Your task to perform on an android device: change keyboard looks Image 0: 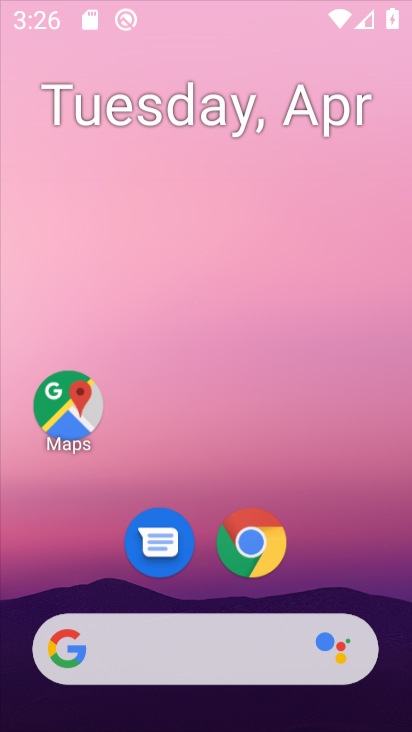
Step 0: click (271, 556)
Your task to perform on an android device: change keyboard looks Image 1: 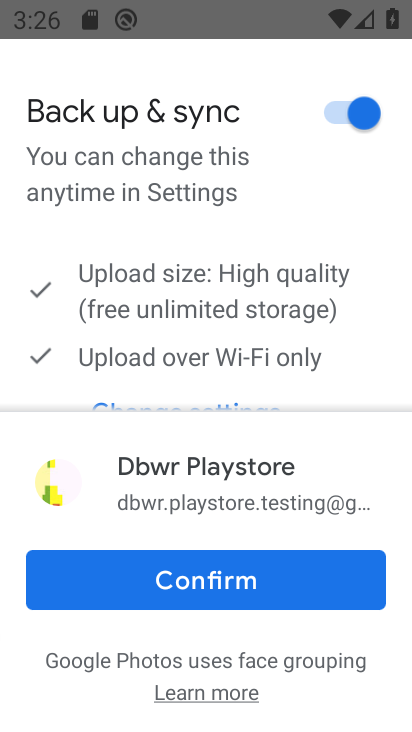
Step 1: press home button
Your task to perform on an android device: change keyboard looks Image 2: 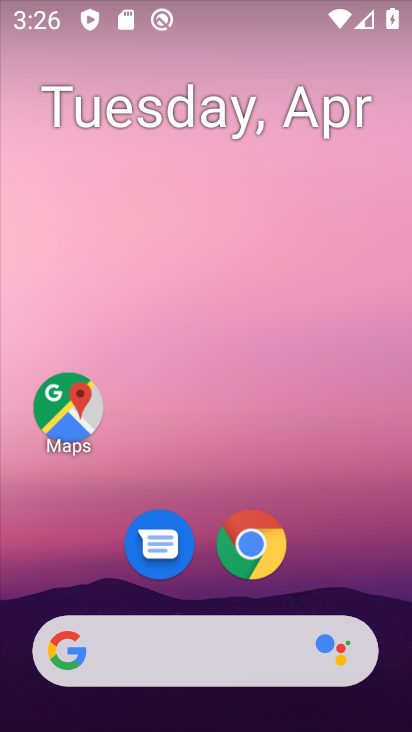
Step 2: drag from (328, 440) to (309, 160)
Your task to perform on an android device: change keyboard looks Image 3: 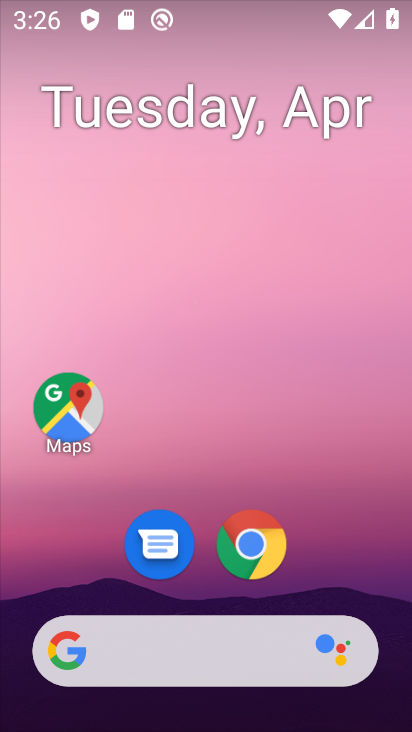
Step 3: drag from (322, 454) to (310, 165)
Your task to perform on an android device: change keyboard looks Image 4: 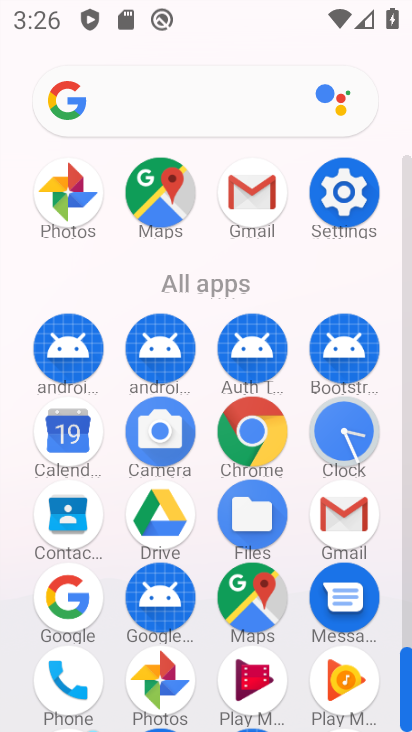
Step 4: click (351, 224)
Your task to perform on an android device: change keyboard looks Image 5: 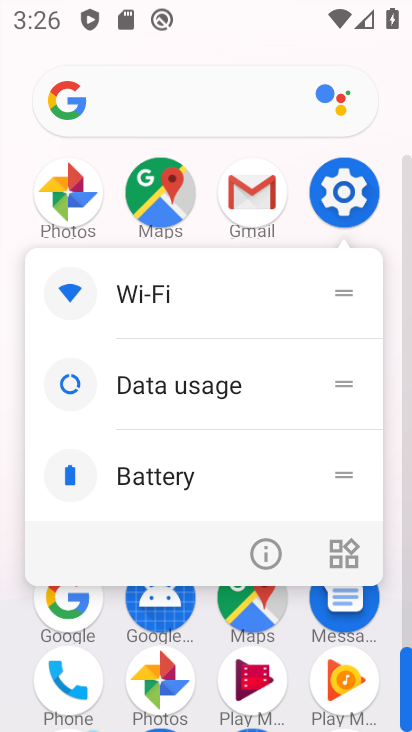
Step 5: click (351, 212)
Your task to perform on an android device: change keyboard looks Image 6: 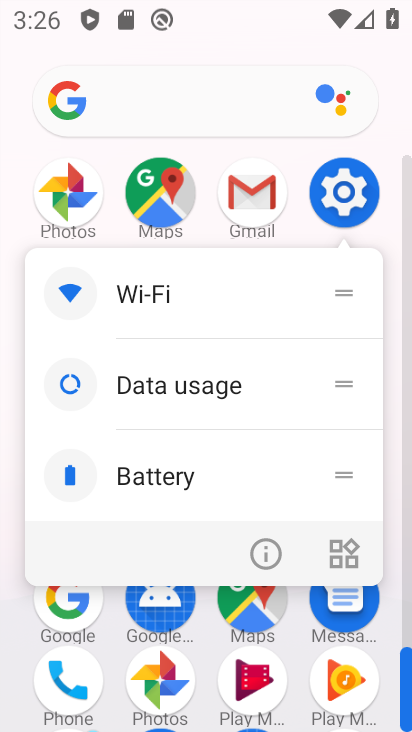
Step 6: click (351, 212)
Your task to perform on an android device: change keyboard looks Image 7: 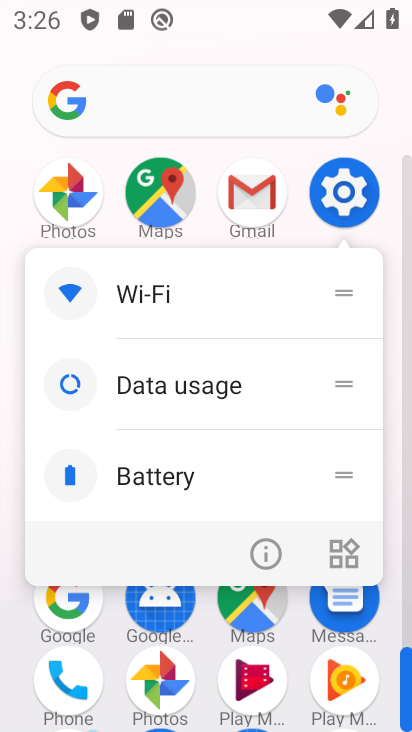
Step 7: click (351, 212)
Your task to perform on an android device: change keyboard looks Image 8: 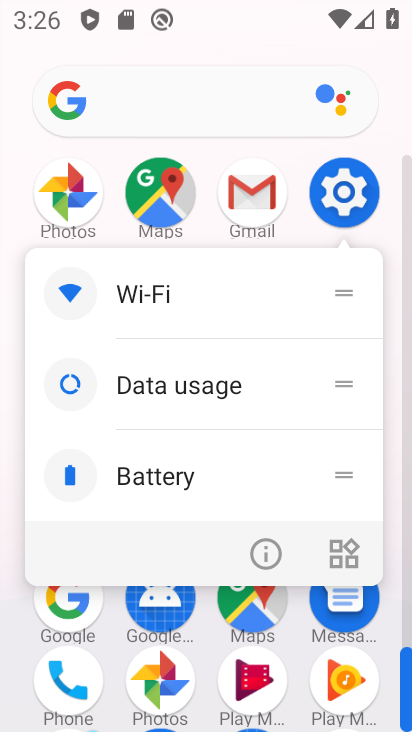
Step 8: click (351, 212)
Your task to perform on an android device: change keyboard looks Image 9: 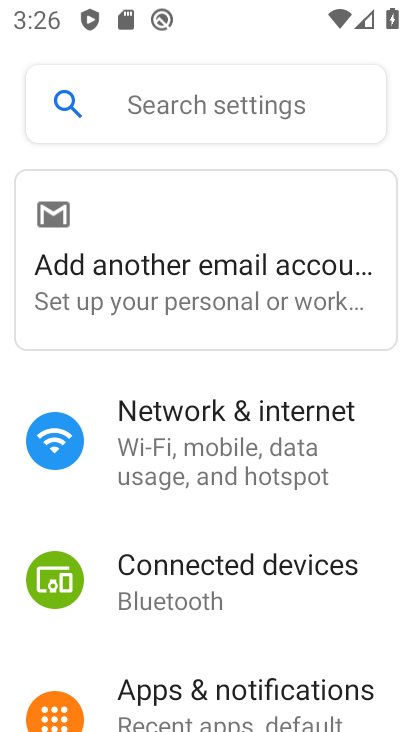
Step 9: drag from (290, 587) to (314, 208)
Your task to perform on an android device: change keyboard looks Image 10: 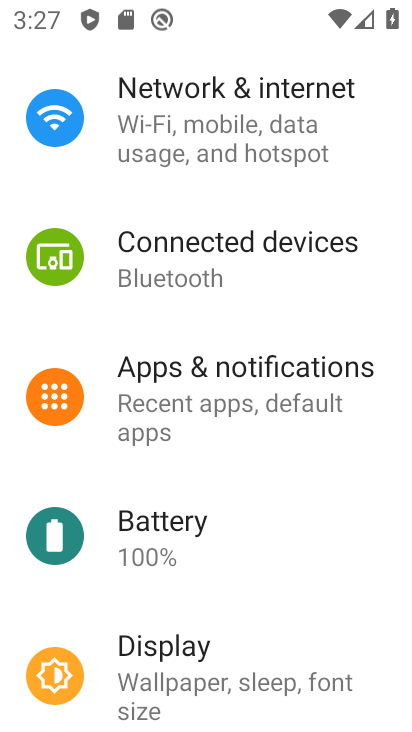
Step 10: drag from (313, 614) to (293, 168)
Your task to perform on an android device: change keyboard looks Image 11: 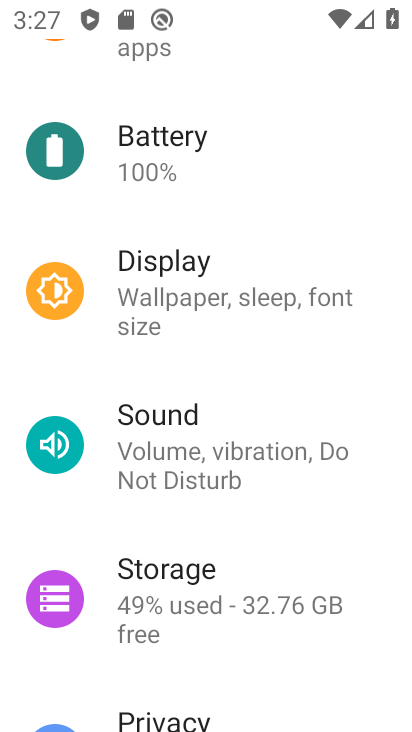
Step 11: drag from (281, 674) to (267, 186)
Your task to perform on an android device: change keyboard looks Image 12: 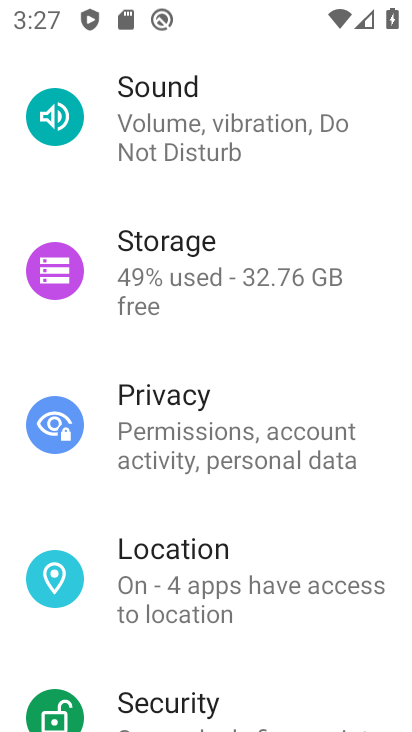
Step 12: drag from (238, 704) to (224, 221)
Your task to perform on an android device: change keyboard looks Image 13: 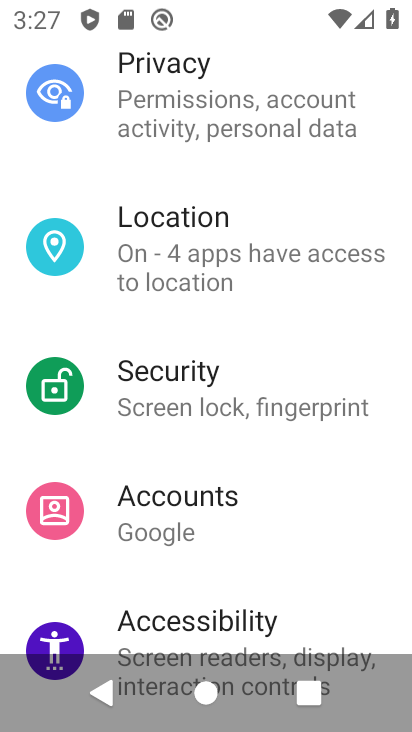
Step 13: drag from (281, 619) to (261, 201)
Your task to perform on an android device: change keyboard looks Image 14: 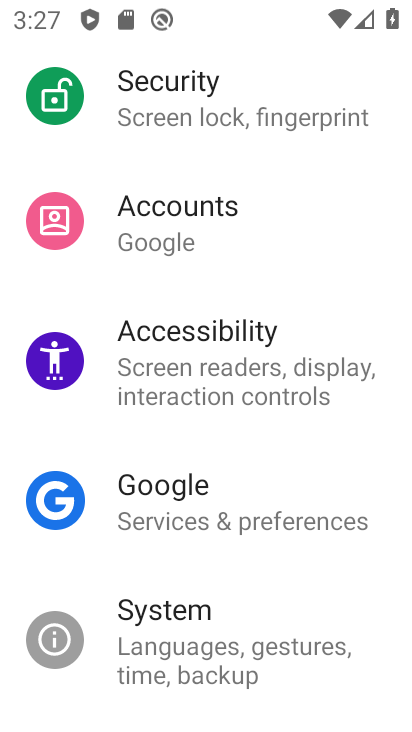
Step 14: click (215, 667)
Your task to perform on an android device: change keyboard looks Image 15: 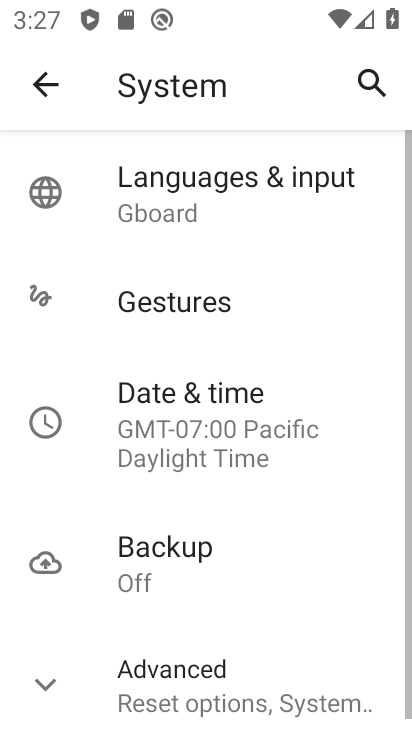
Step 15: click (197, 206)
Your task to perform on an android device: change keyboard looks Image 16: 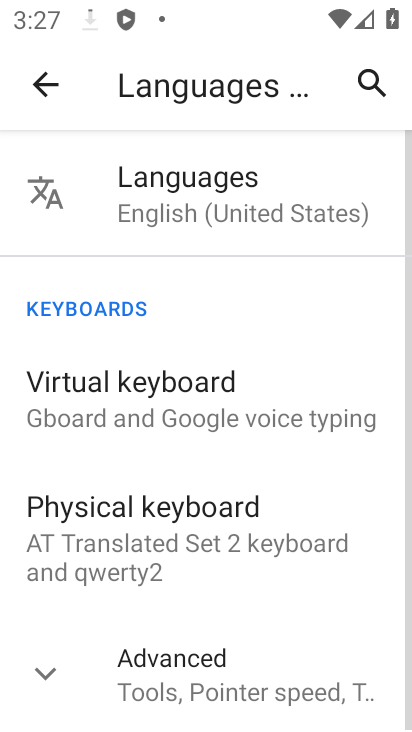
Step 16: click (190, 418)
Your task to perform on an android device: change keyboard looks Image 17: 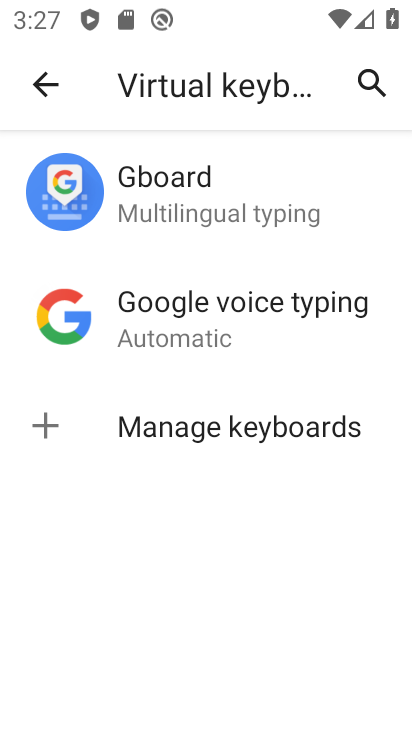
Step 17: click (212, 200)
Your task to perform on an android device: change keyboard looks Image 18: 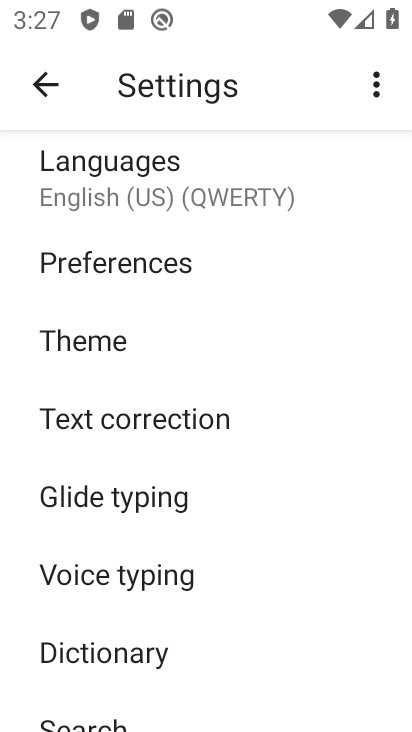
Step 18: click (108, 352)
Your task to perform on an android device: change keyboard looks Image 19: 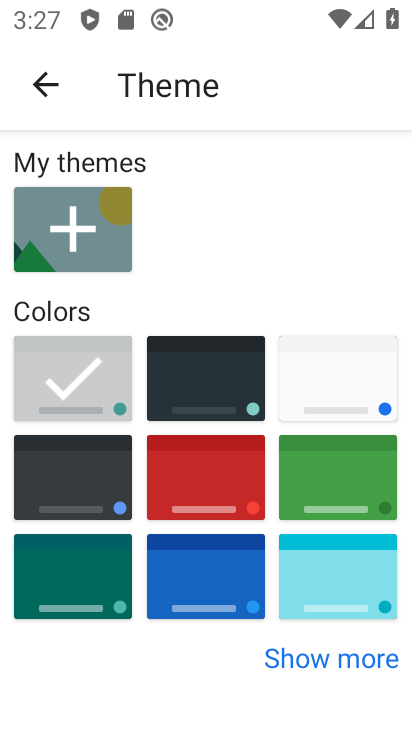
Step 19: click (217, 388)
Your task to perform on an android device: change keyboard looks Image 20: 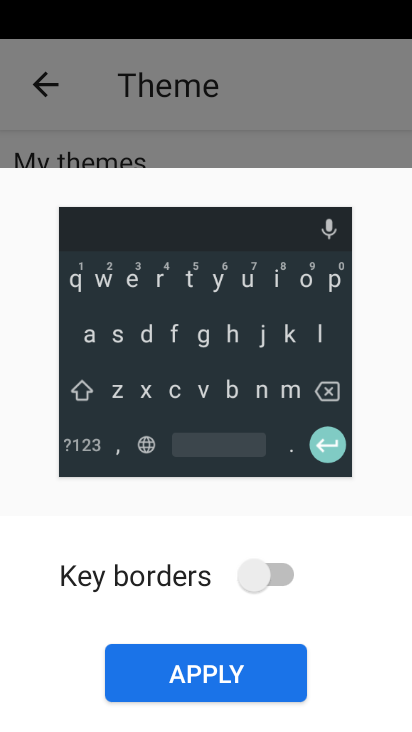
Step 20: click (261, 564)
Your task to perform on an android device: change keyboard looks Image 21: 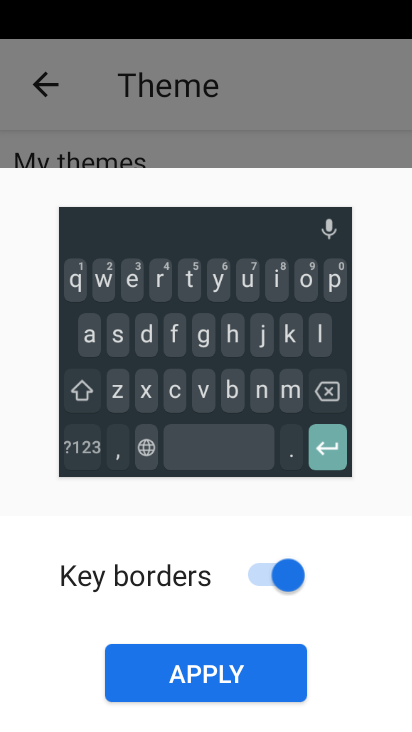
Step 21: click (250, 688)
Your task to perform on an android device: change keyboard looks Image 22: 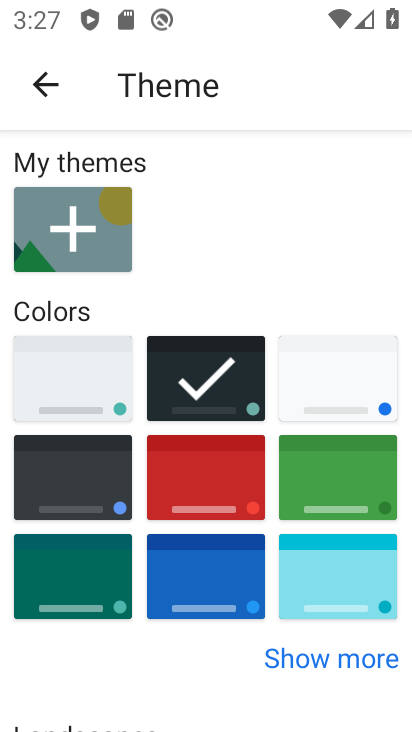
Step 22: task complete